Your task to perform on an android device: check android version Image 0: 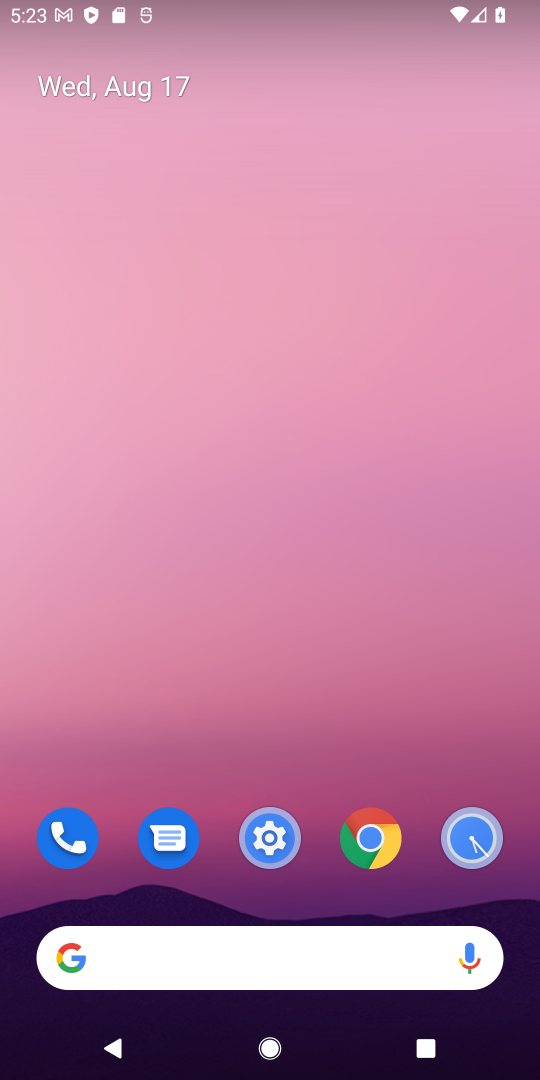
Step 0: drag from (287, 910) to (381, 54)
Your task to perform on an android device: check android version Image 1: 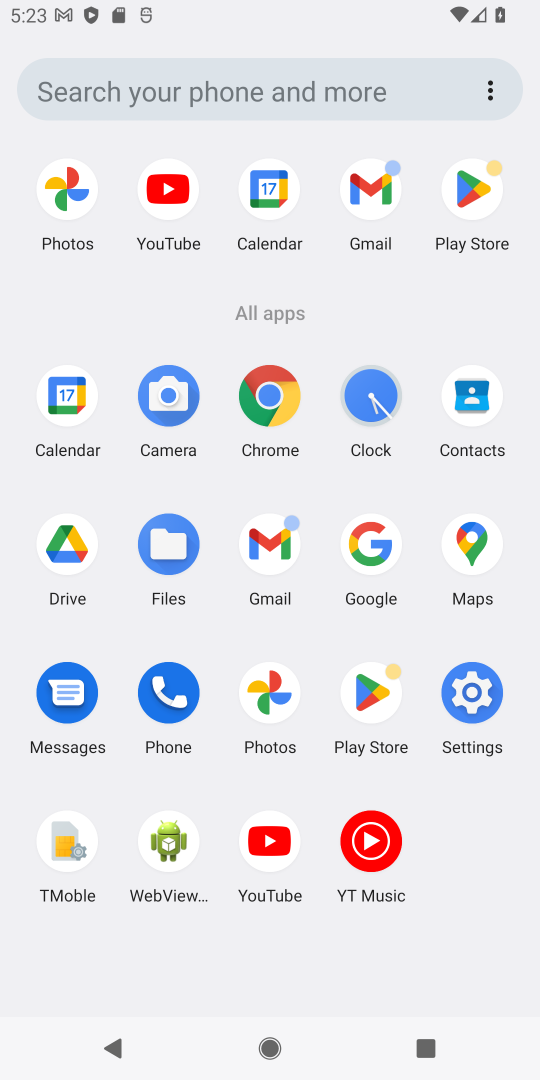
Step 1: click (473, 706)
Your task to perform on an android device: check android version Image 2: 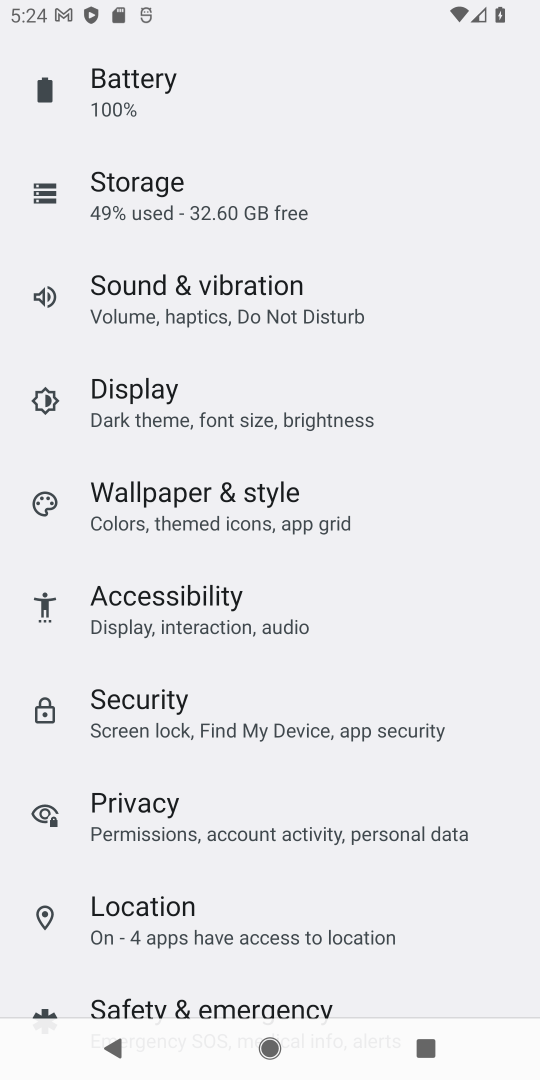
Step 2: drag from (279, 793) to (235, 117)
Your task to perform on an android device: check android version Image 3: 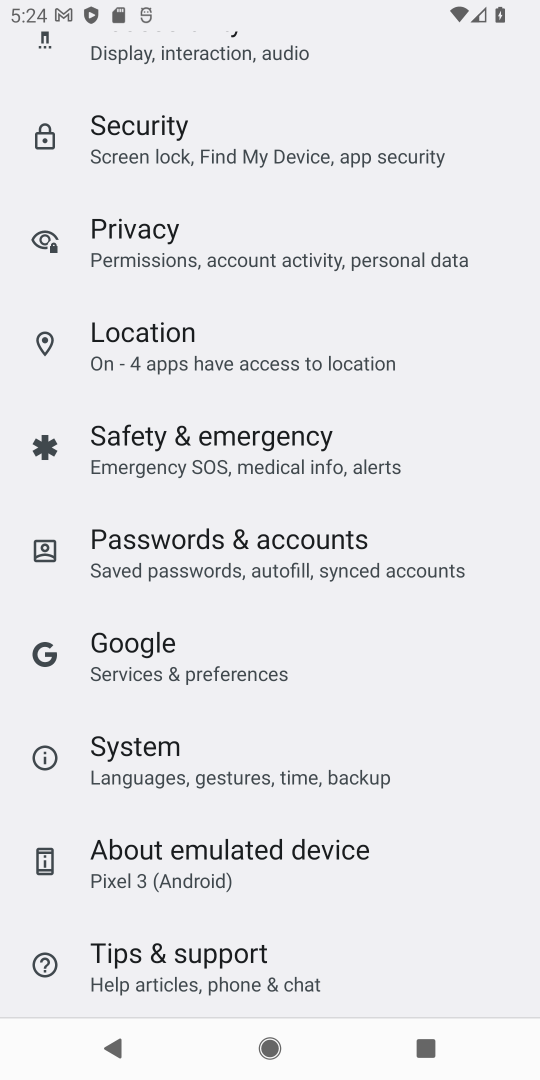
Step 3: click (81, 862)
Your task to perform on an android device: check android version Image 4: 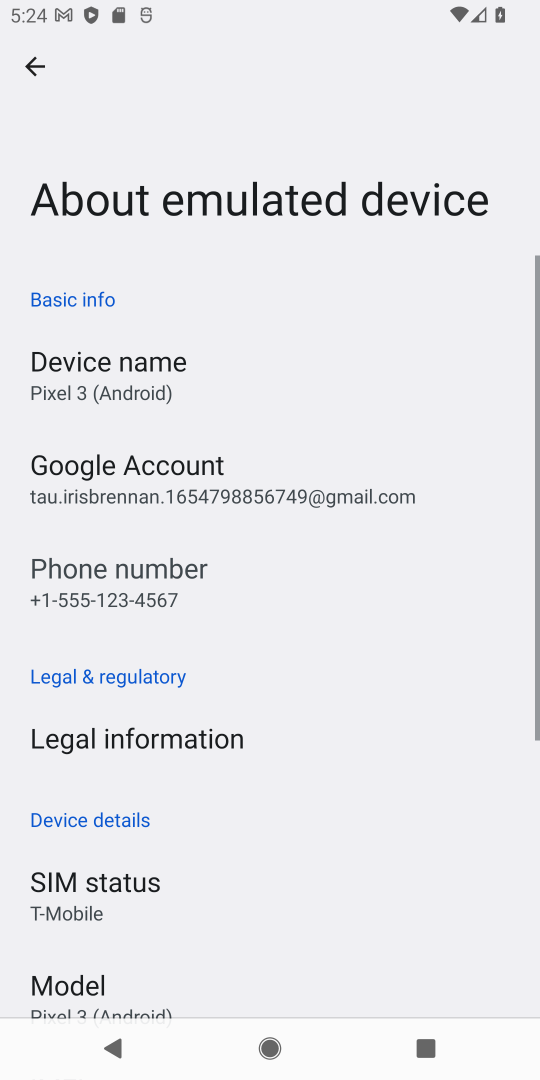
Step 4: drag from (173, 788) to (178, 271)
Your task to perform on an android device: check android version Image 5: 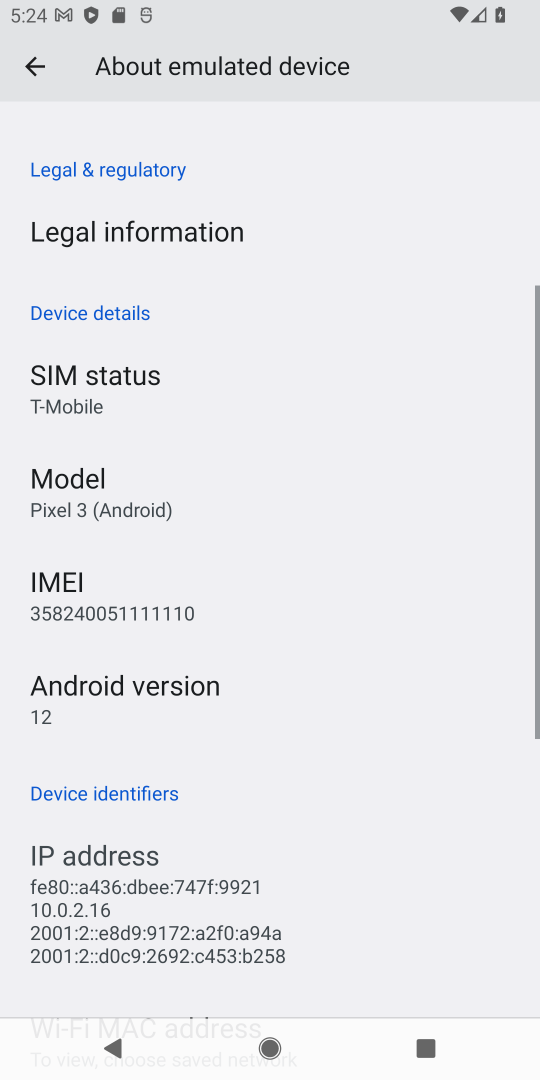
Step 5: click (68, 737)
Your task to perform on an android device: check android version Image 6: 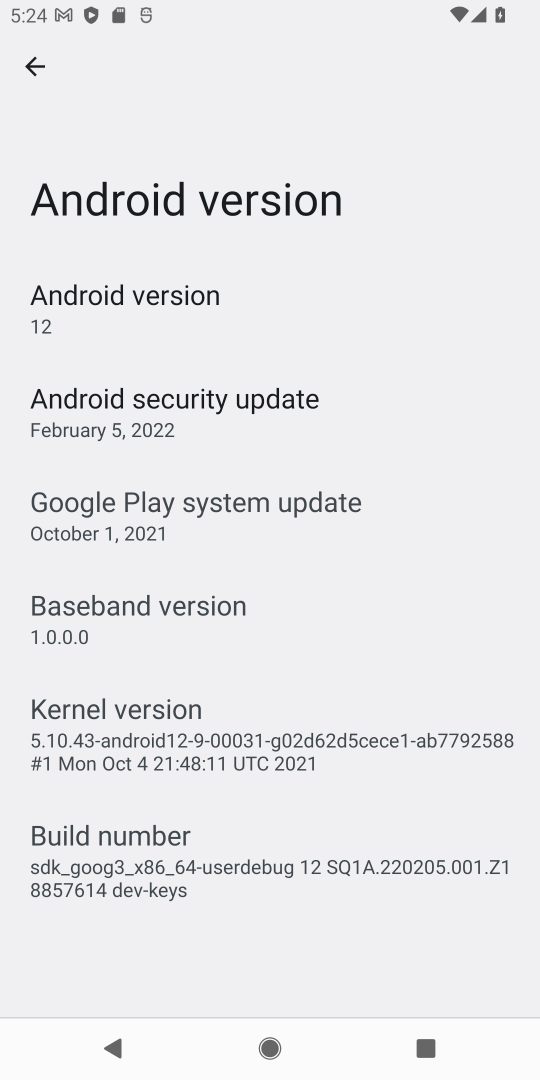
Step 6: click (63, 328)
Your task to perform on an android device: check android version Image 7: 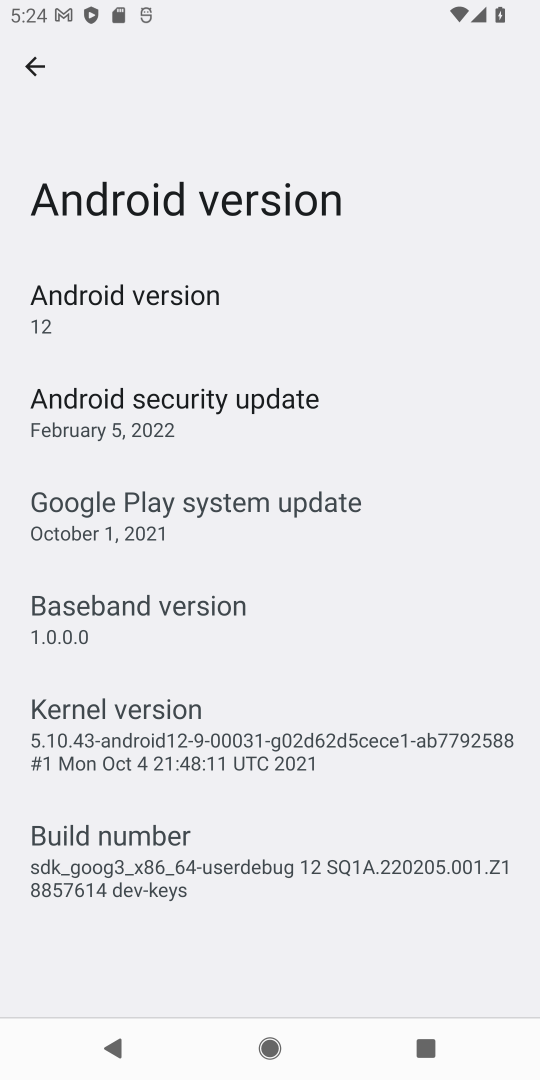
Step 7: task complete